Your task to perform on an android device: open chrome and create a bookmark for the current page Image 0: 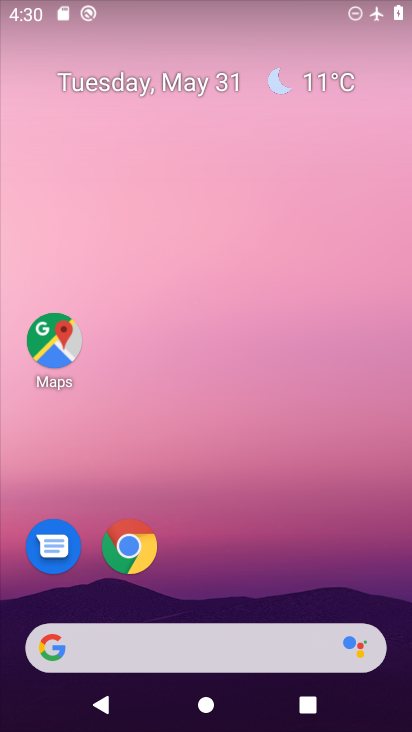
Step 0: click (129, 550)
Your task to perform on an android device: open chrome and create a bookmark for the current page Image 1: 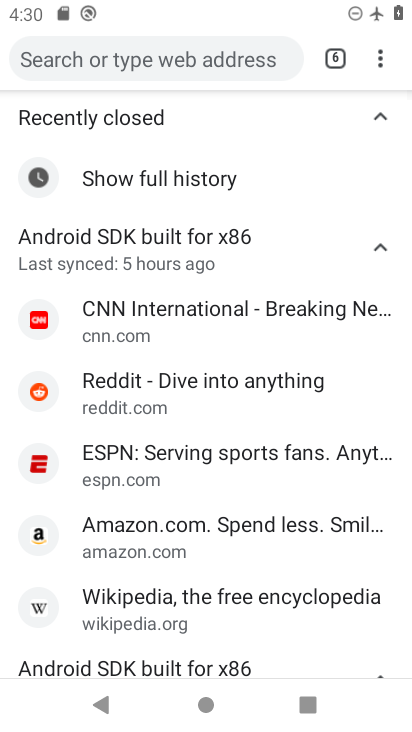
Step 1: click (327, 55)
Your task to perform on an android device: open chrome and create a bookmark for the current page Image 2: 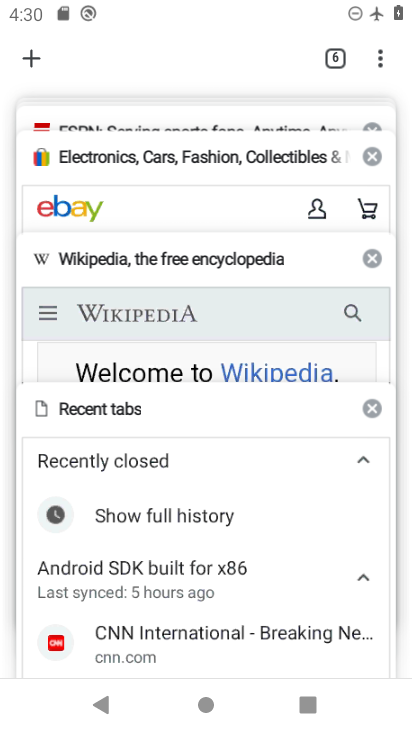
Step 2: click (25, 46)
Your task to perform on an android device: open chrome and create a bookmark for the current page Image 3: 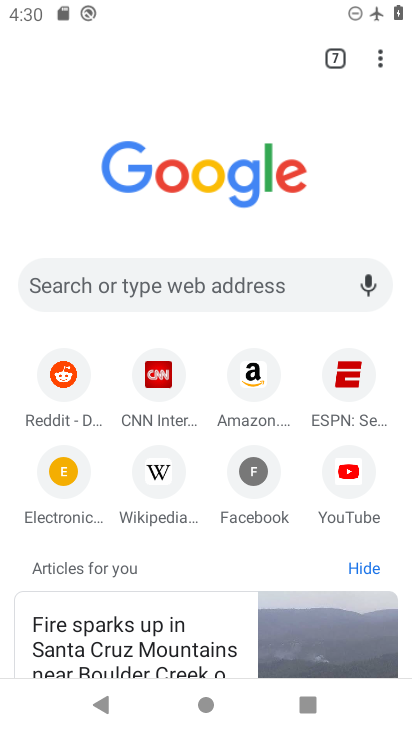
Step 3: click (381, 66)
Your task to perform on an android device: open chrome and create a bookmark for the current page Image 4: 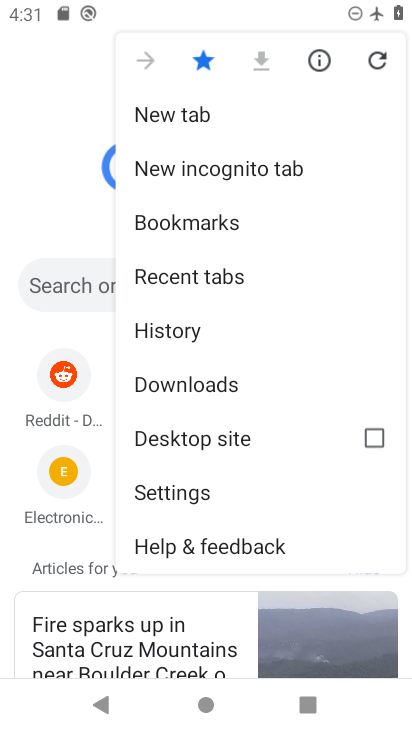
Step 4: task complete